Your task to perform on an android device: Search for pizza restaurants on Maps Image 0: 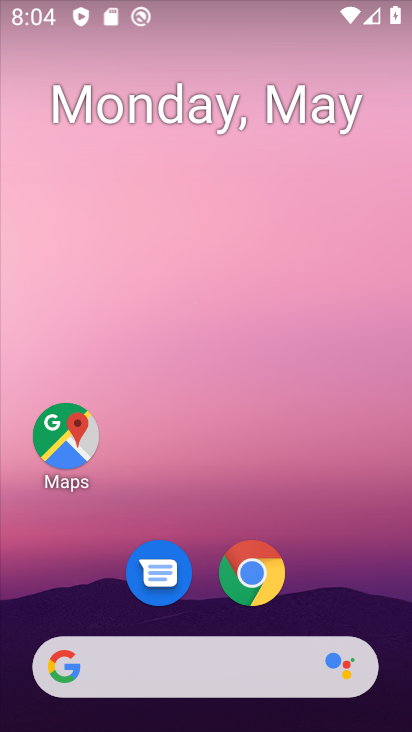
Step 0: click (89, 439)
Your task to perform on an android device: Search for pizza restaurants on Maps Image 1: 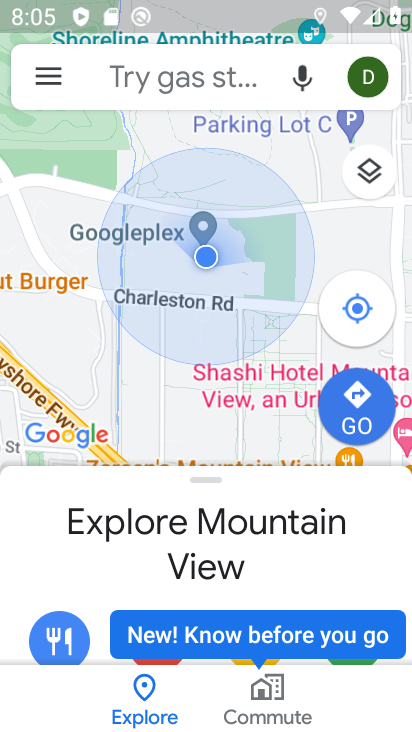
Step 1: click (197, 81)
Your task to perform on an android device: Search for pizza restaurants on Maps Image 2: 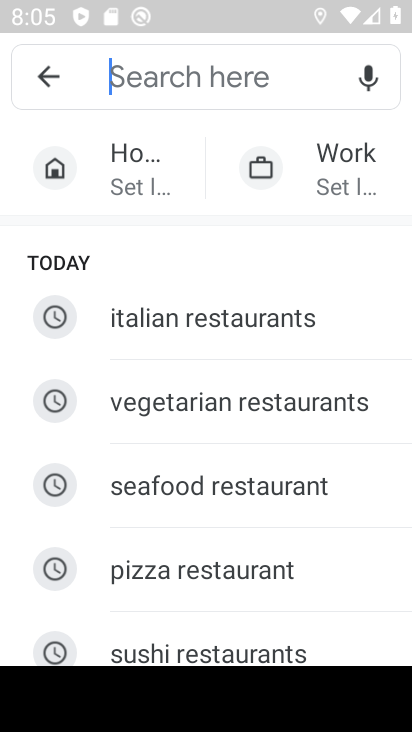
Step 2: click (235, 546)
Your task to perform on an android device: Search for pizza restaurants on Maps Image 3: 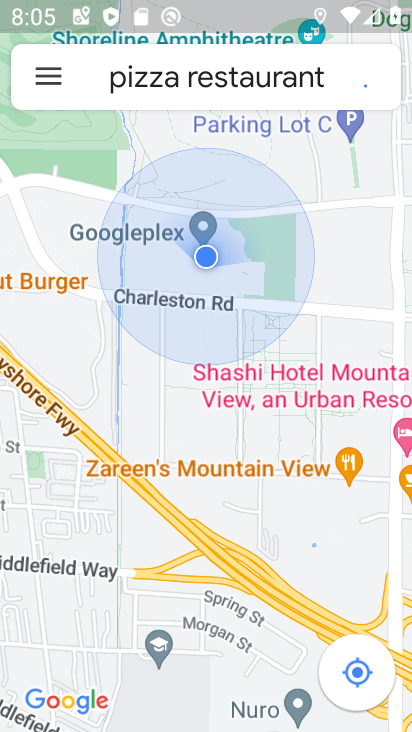
Step 3: task complete